Your task to perform on an android device: check android version Image 0: 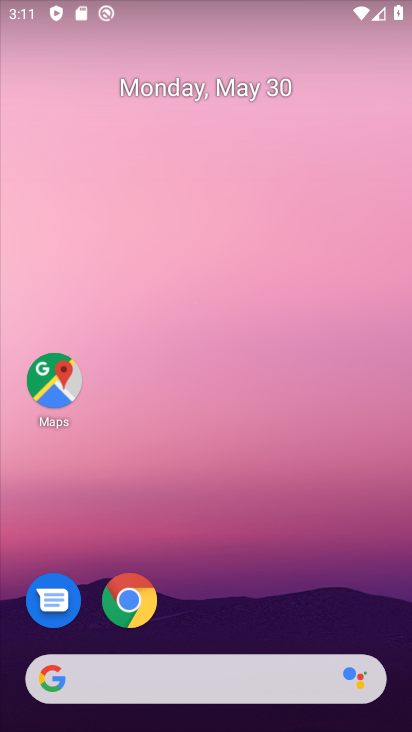
Step 0: drag from (258, 674) to (164, 84)
Your task to perform on an android device: check android version Image 1: 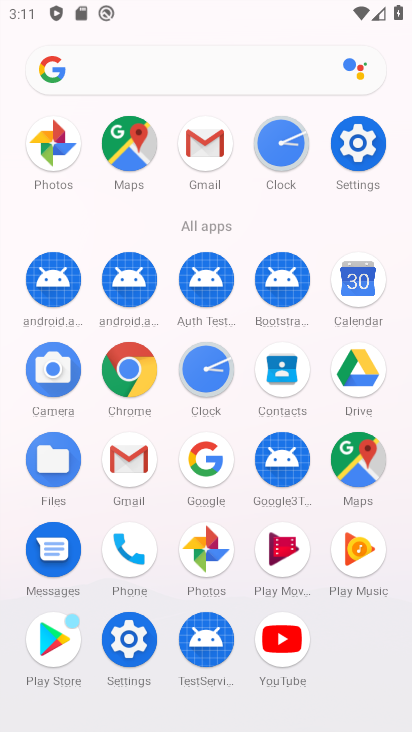
Step 1: drag from (223, 505) to (194, 34)
Your task to perform on an android device: check android version Image 2: 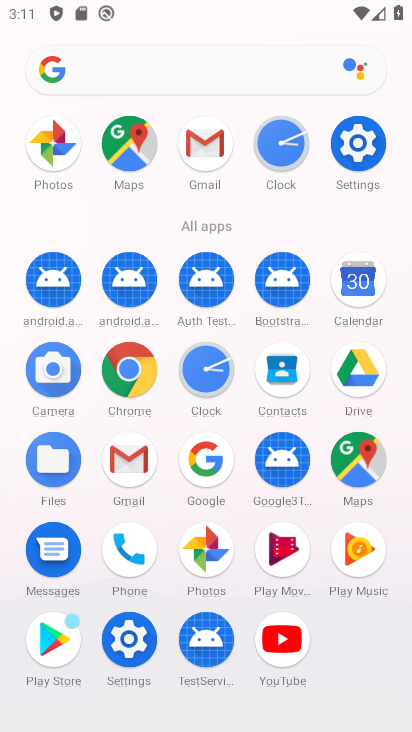
Step 2: click (228, 16)
Your task to perform on an android device: check android version Image 3: 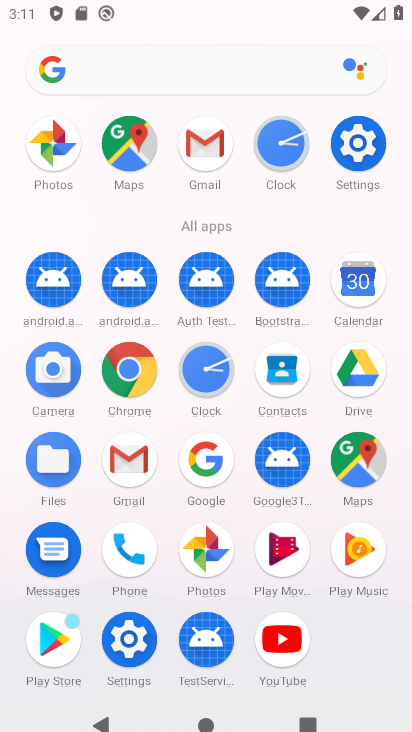
Step 3: click (241, 20)
Your task to perform on an android device: check android version Image 4: 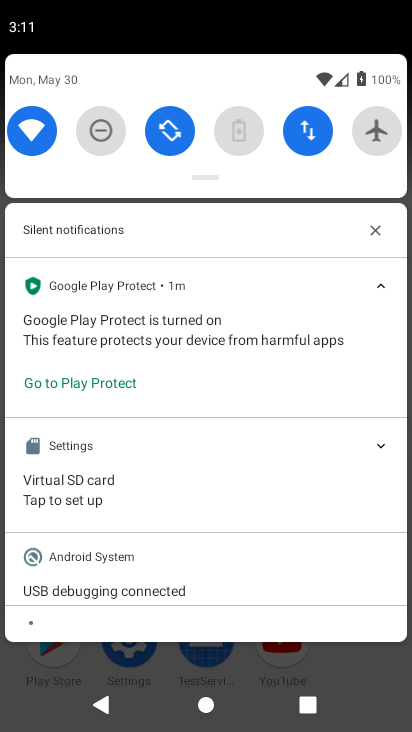
Step 4: press back button
Your task to perform on an android device: check android version Image 5: 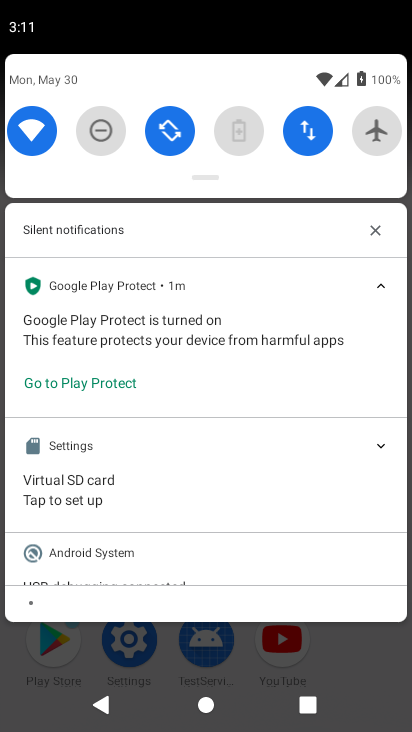
Step 5: press back button
Your task to perform on an android device: check android version Image 6: 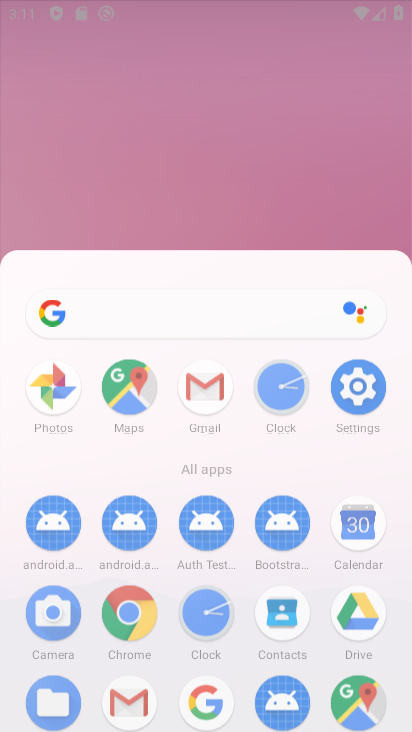
Step 6: press back button
Your task to perform on an android device: check android version Image 7: 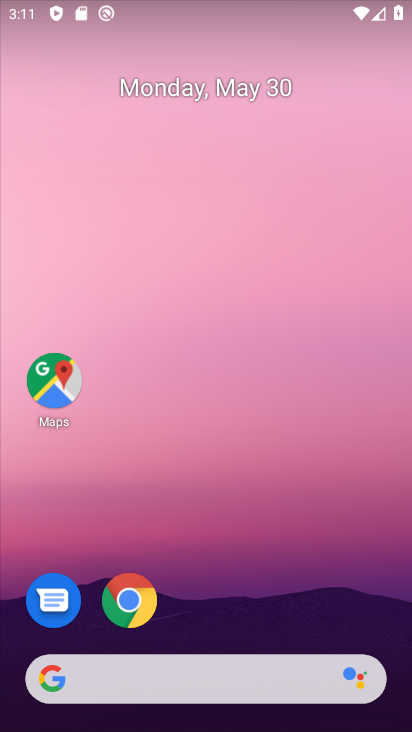
Step 7: click (219, 33)
Your task to perform on an android device: check android version Image 8: 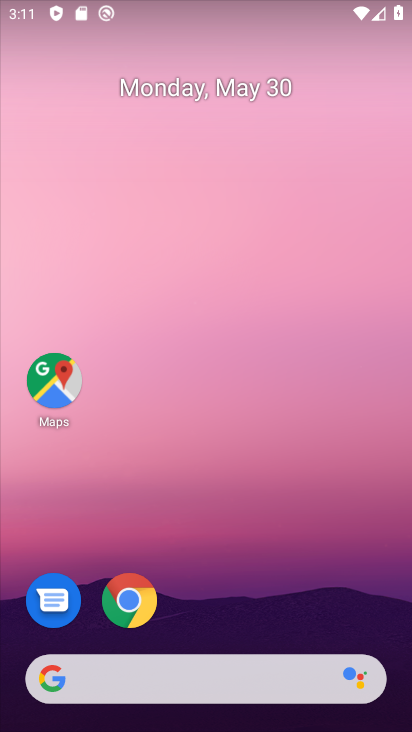
Step 8: drag from (197, 269) to (123, 11)
Your task to perform on an android device: check android version Image 9: 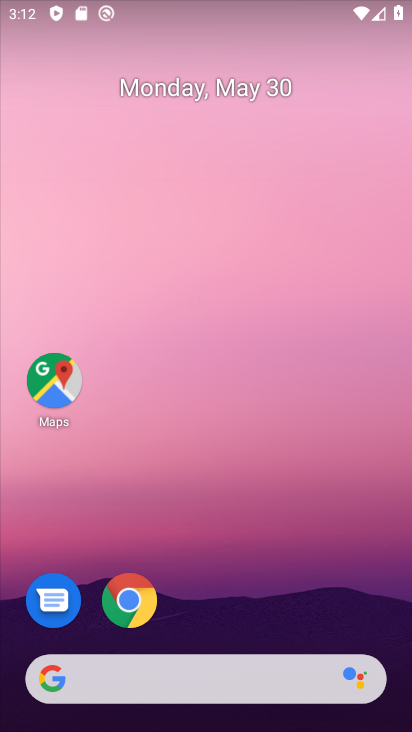
Step 9: click (410, 477)
Your task to perform on an android device: check android version Image 10: 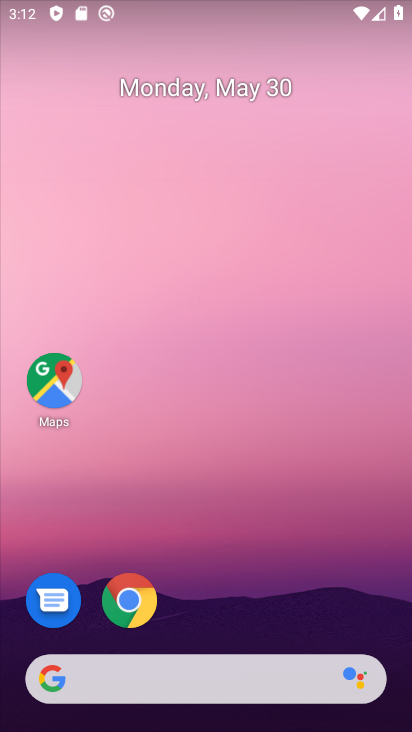
Step 10: drag from (270, 674) to (156, 8)
Your task to perform on an android device: check android version Image 11: 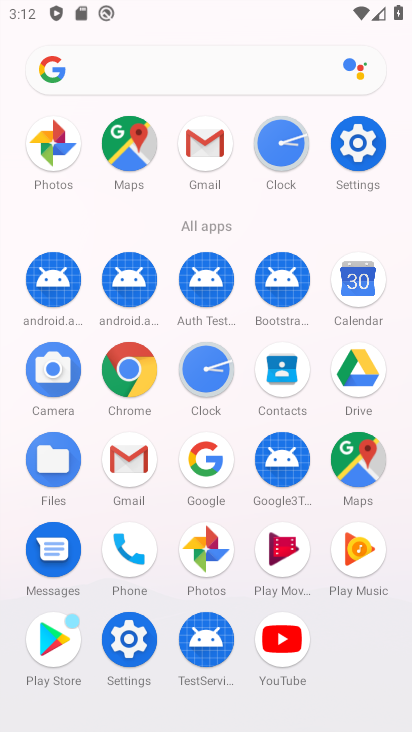
Step 11: click (126, 644)
Your task to perform on an android device: check android version Image 12: 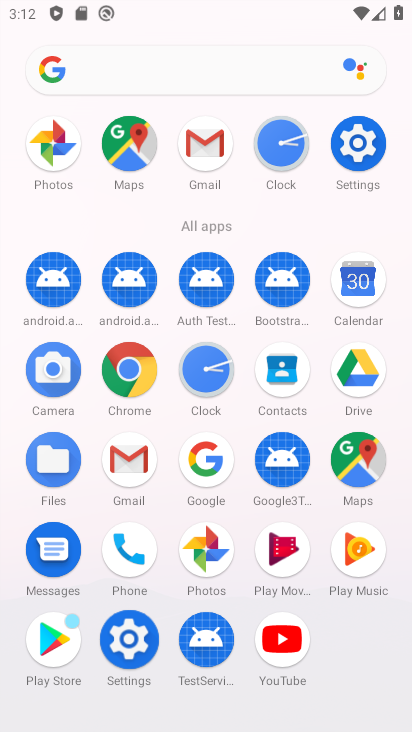
Step 12: click (118, 633)
Your task to perform on an android device: check android version Image 13: 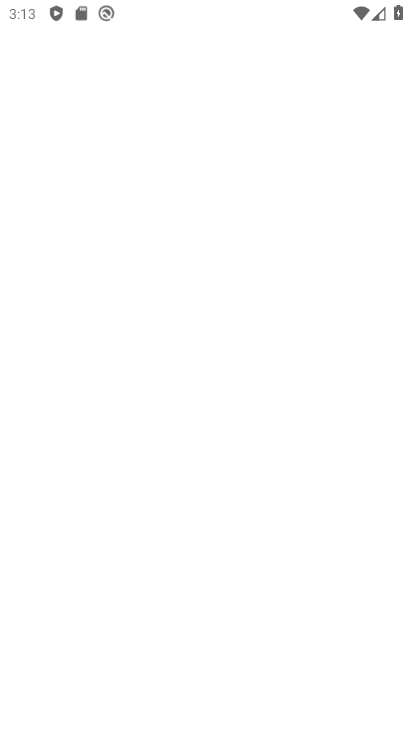
Step 13: click (86, 635)
Your task to perform on an android device: check android version Image 14: 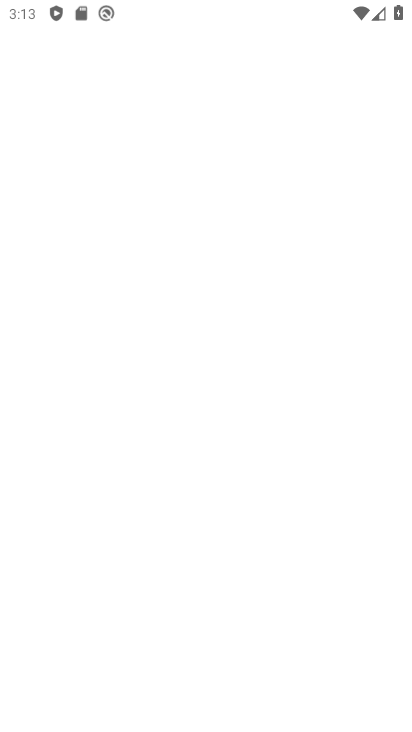
Step 14: task complete